Your task to perform on an android device: clear history in the chrome app Image 0: 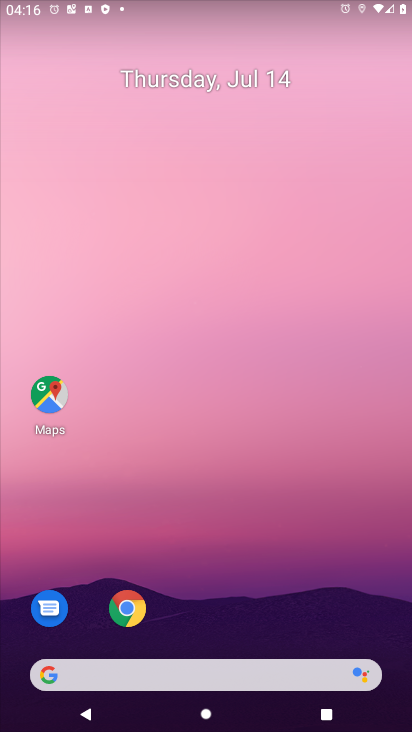
Step 0: click (130, 608)
Your task to perform on an android device: clear history in the chrome app Image 1: 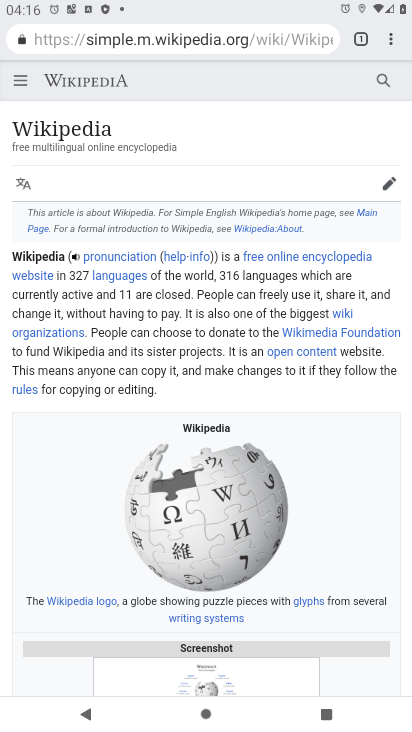
Step 1: click (389, 39)
Your task to perform on an android device: clear history in the chrome app Image 2: 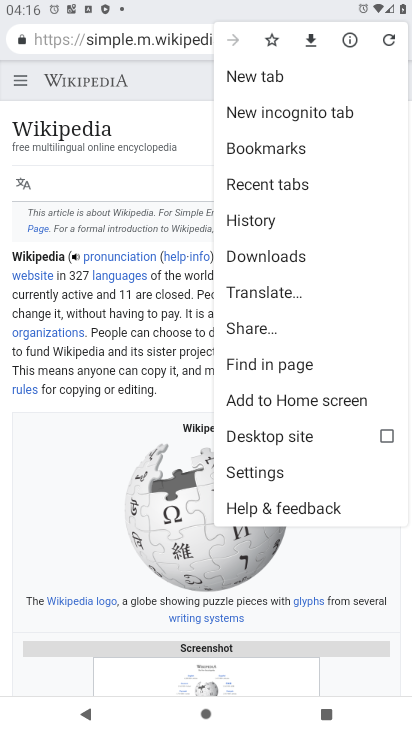
Step 2: click (240, 210)
Your task to perform on an android device: clear history in the chrome app Image 3: 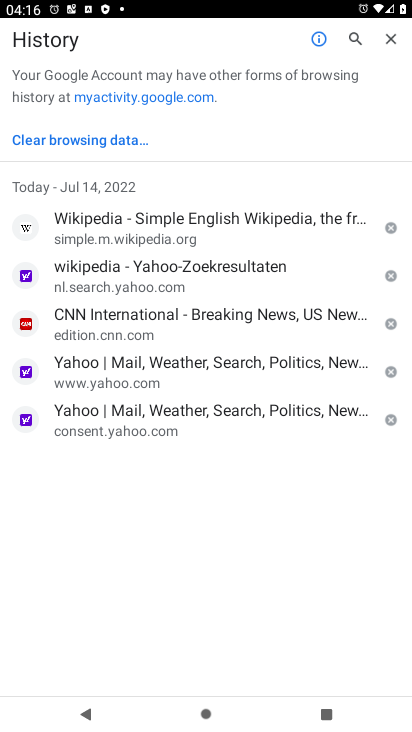
Step 3: click (51, 133)
Your task to perform on an android device: clear history in the chrome app Image 4: 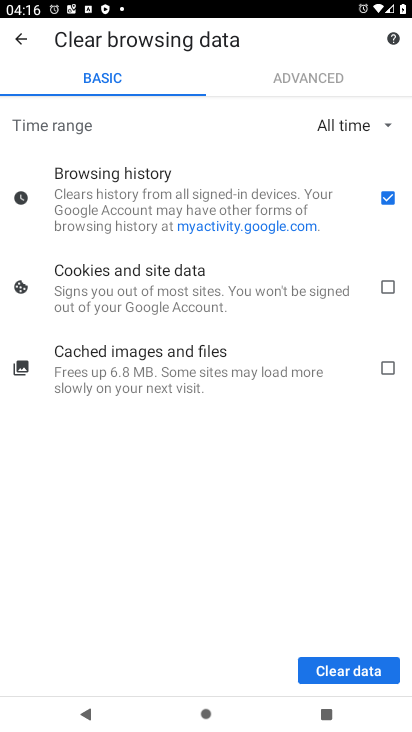
Step 4: click (347, 673)
Your task to perform on an android device: clear history in the chrome app Image 5: 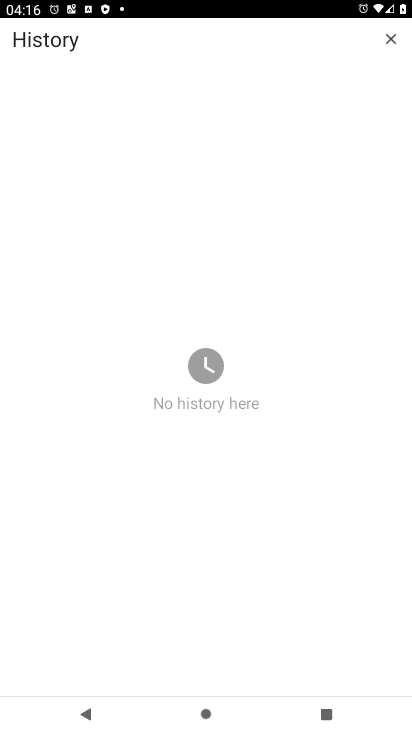
Step 5: task complete